Your task to perform on an android device: empty trash in google photos Image 0: 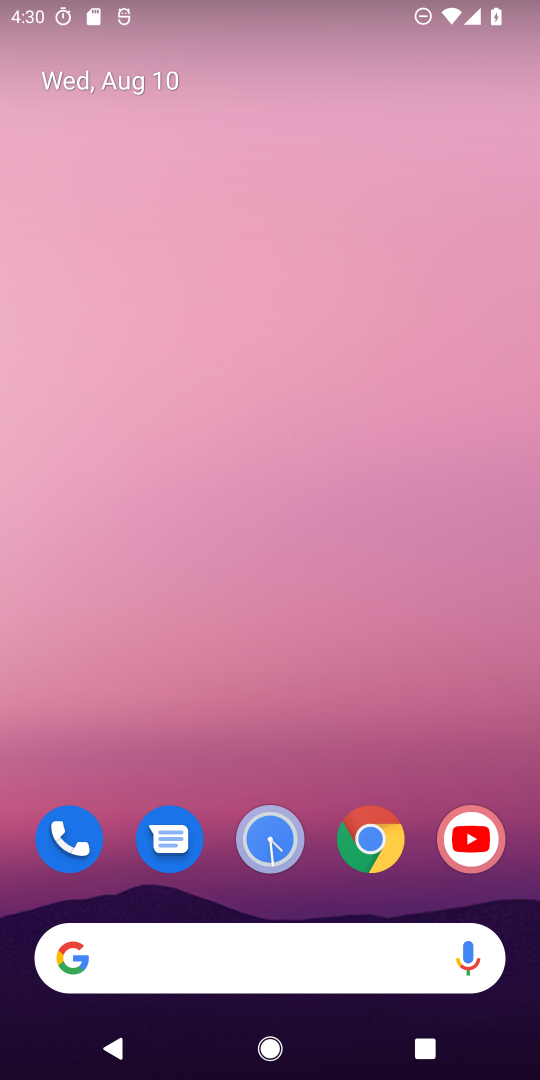
Step 0: drag from (57, 1023) to (335, 315)
Your task to perform on an android device: empty trash in google photos Image 1: 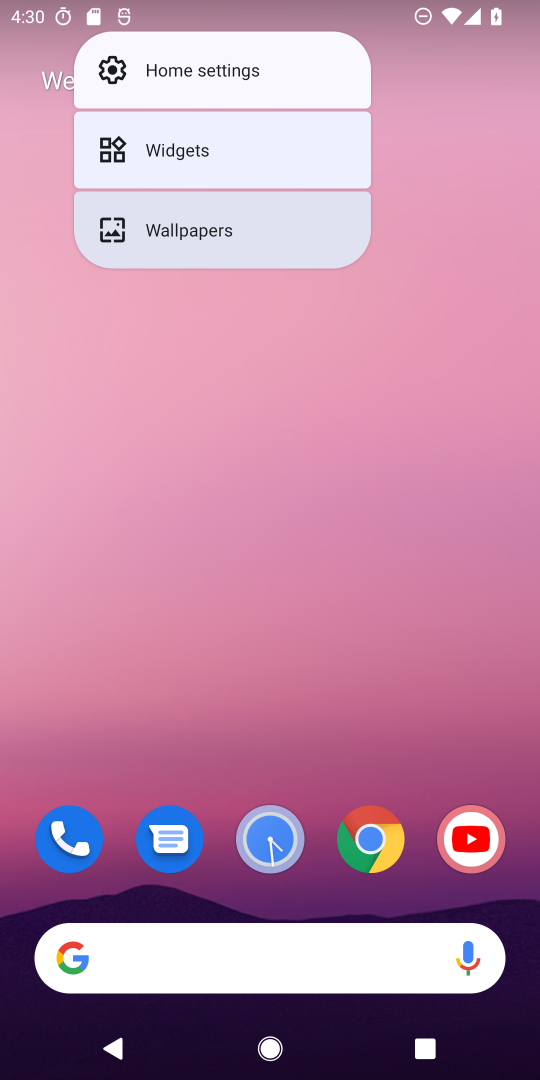
Step 1: task complete